Your task to perform on an android device: toggle pop-ups in chrome Image 0: 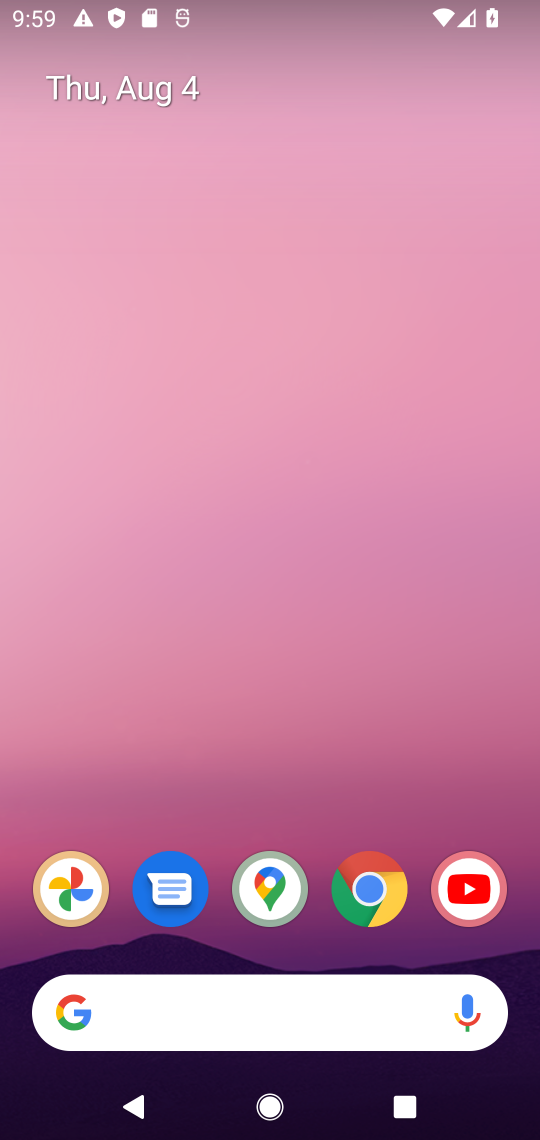
Step 0: press home button
Your task to perform on an android device: toggle pop-ups in chrome Image 1: 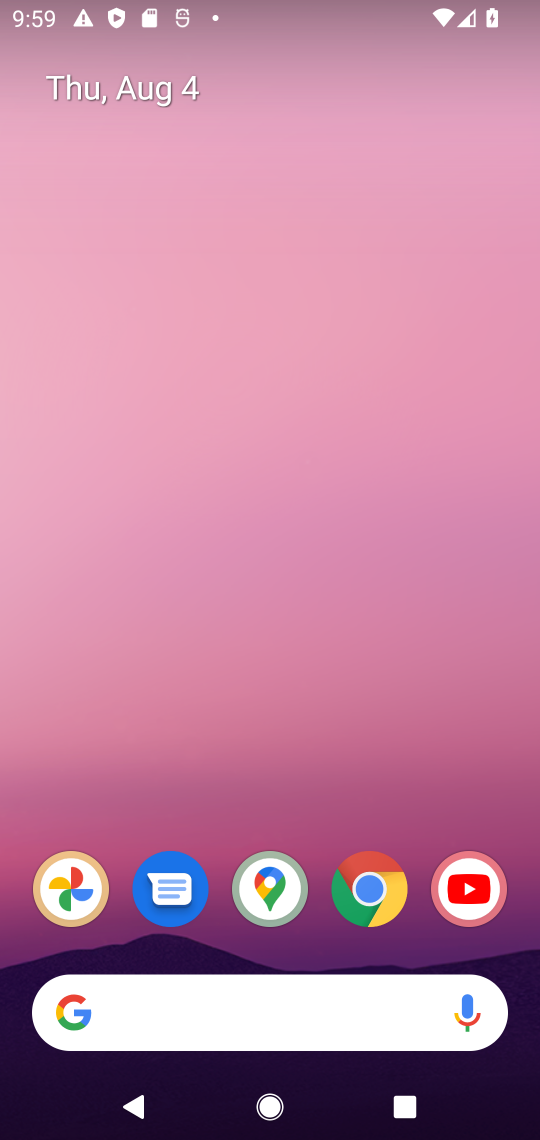
Step 1: drag from (425, 816) to (419, 451)
Your task to perform on an android device: toggle pop-ups in chrome Image 2: 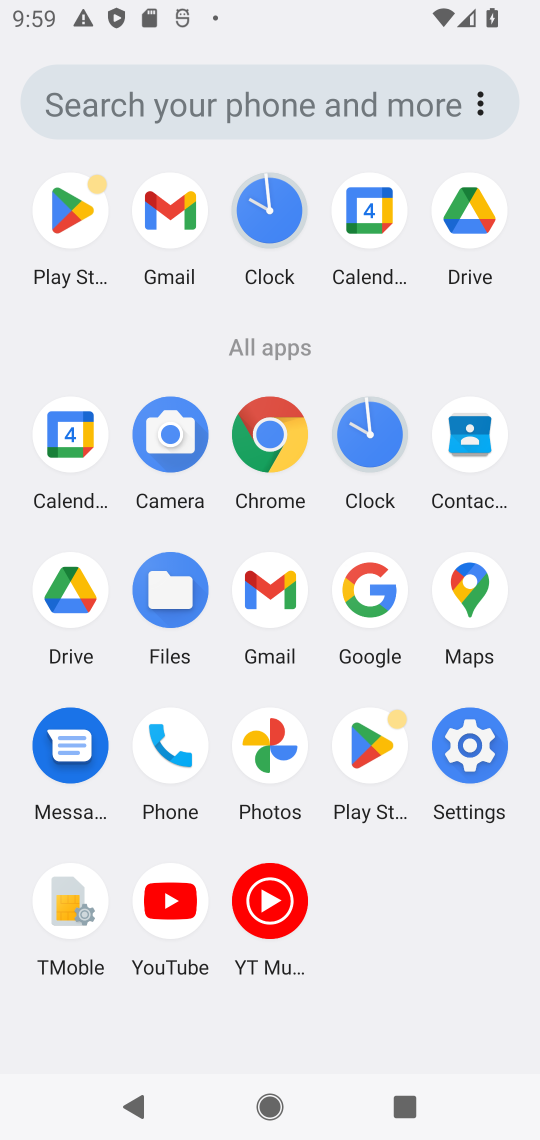
Step 2: click (275, 422)
Your task to perform on an android device: toggle pop-ups in chrome Image 3: 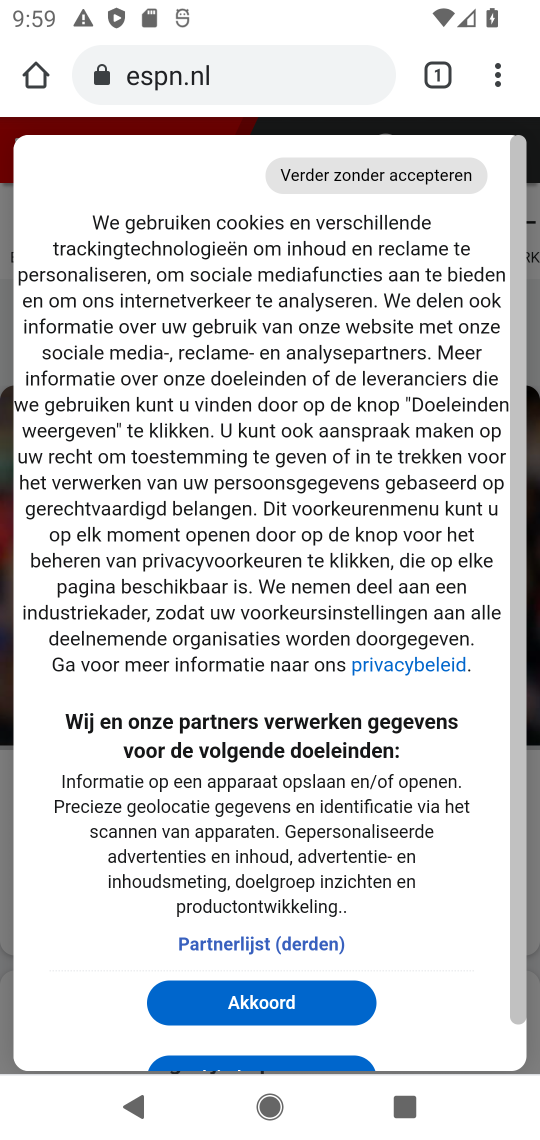
Step 3: click (498, 74)
Your task to perform on an android device: toggle pop-ups in chrome Image 4: 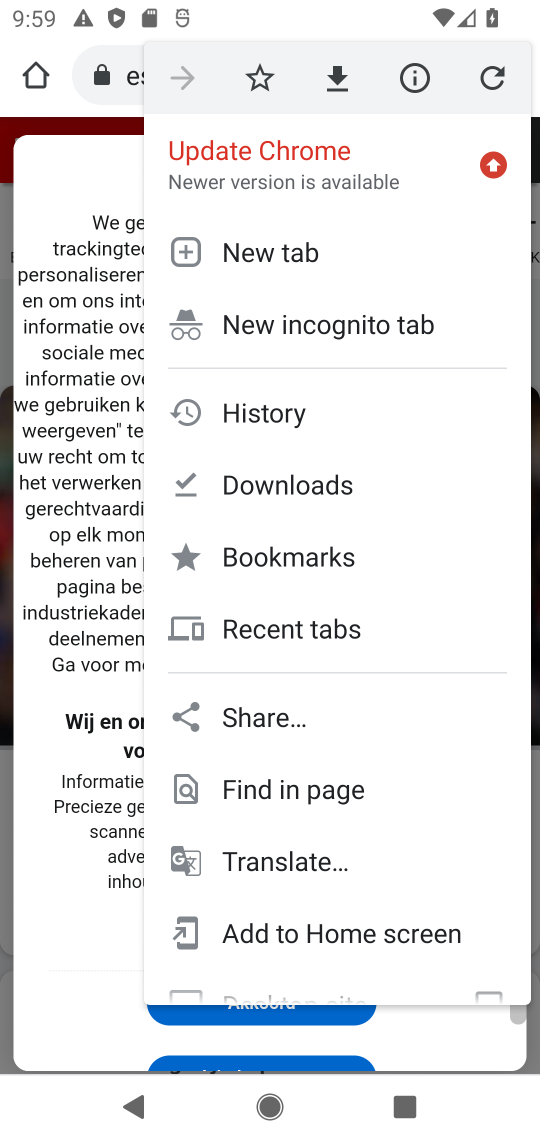
Step 4: drag from (430, 656) to (427, 520)
Your task to perform on an android device: toggle pop-ups in chrome Image 5: 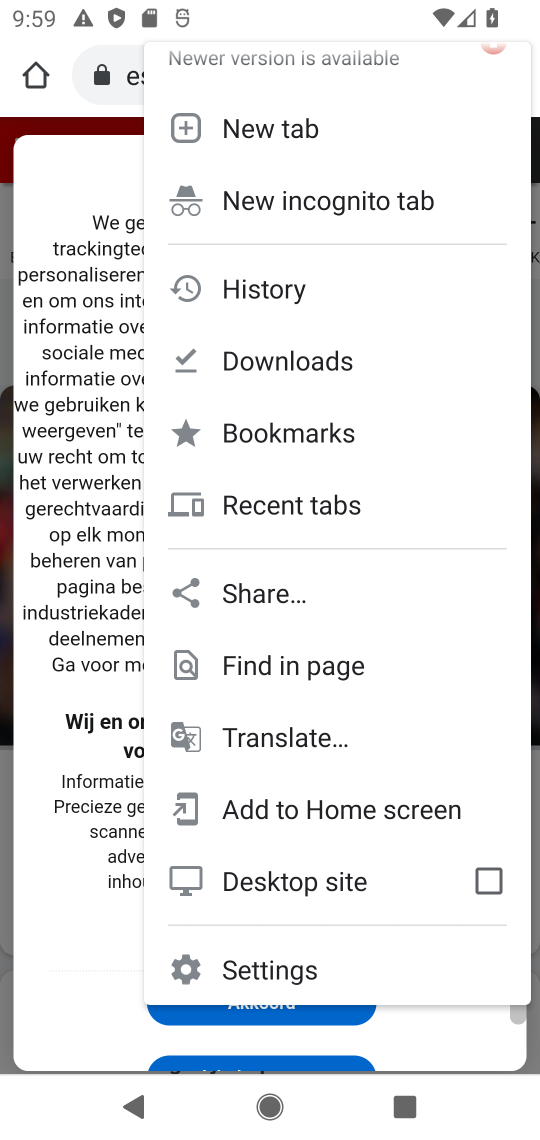
Step 5: drag from (424, 892) to (431, 696)
Your task to perform on an android device: toggle pop-ups in chrome Image 6: 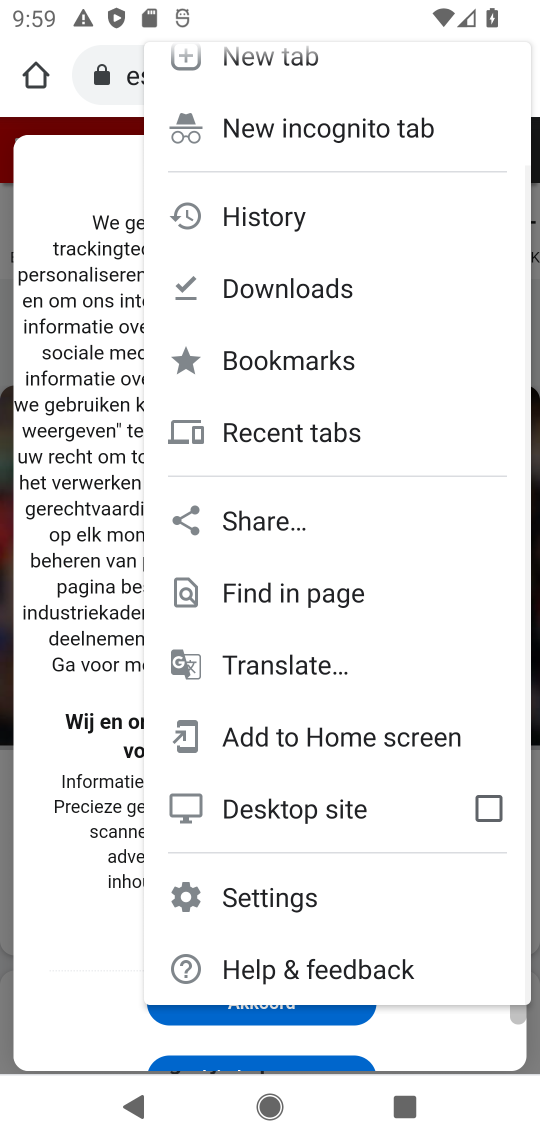
Step 6: click (372, 900)
Your task to perform on an android device: toggle pop-ups in chrome Image 7: 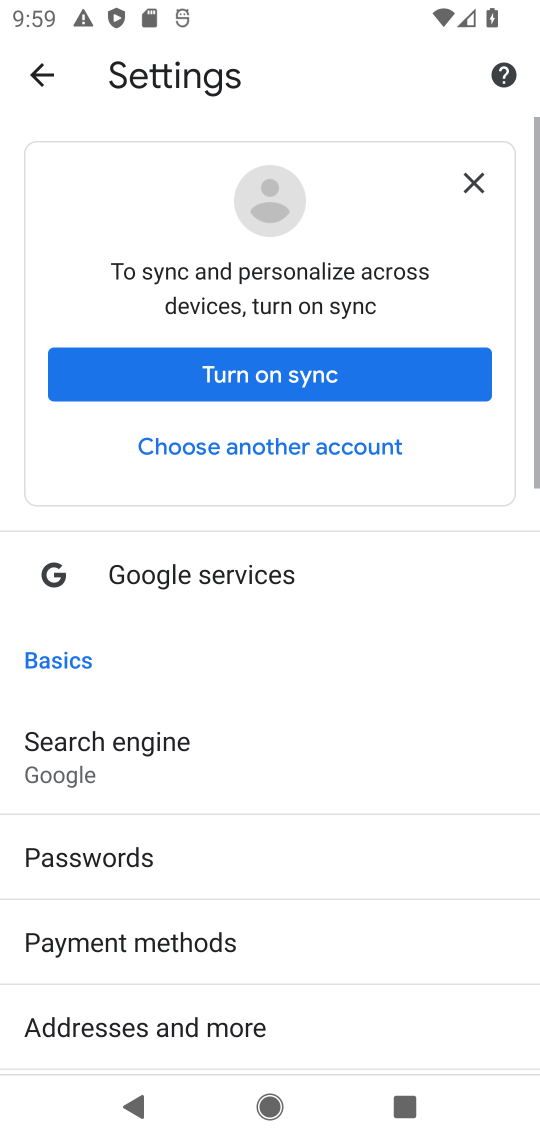
Step 7: drag from (377, 899) to (397, 747)
Your task to perform on an android device: toggle pop-ups in chrome Image 8: 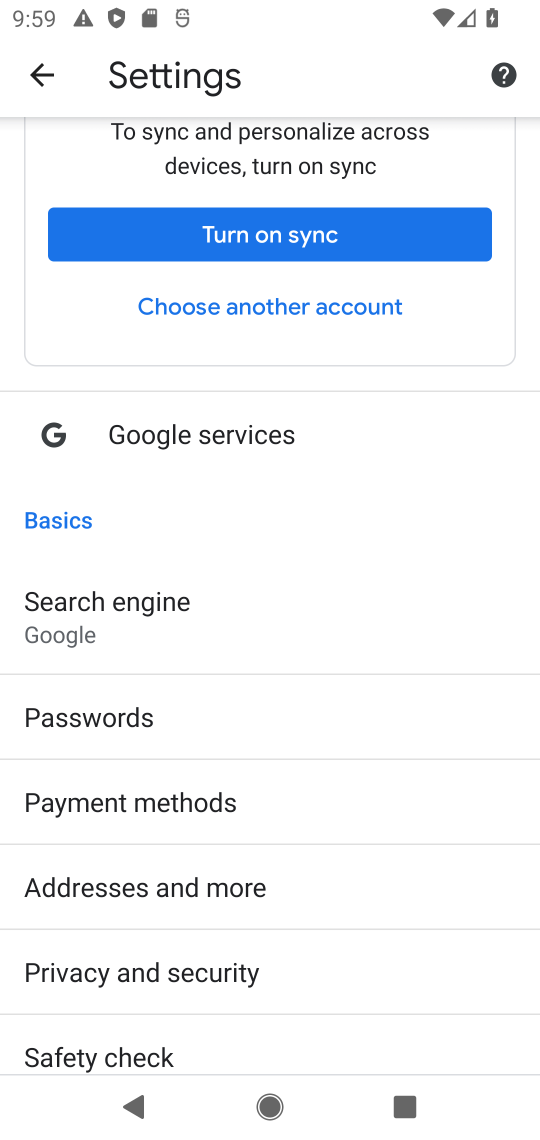
Step 8: drag from (416, 949) to (429, 727)
Your task to perform on an android device: toggle pop-ups in chrome Image 9: 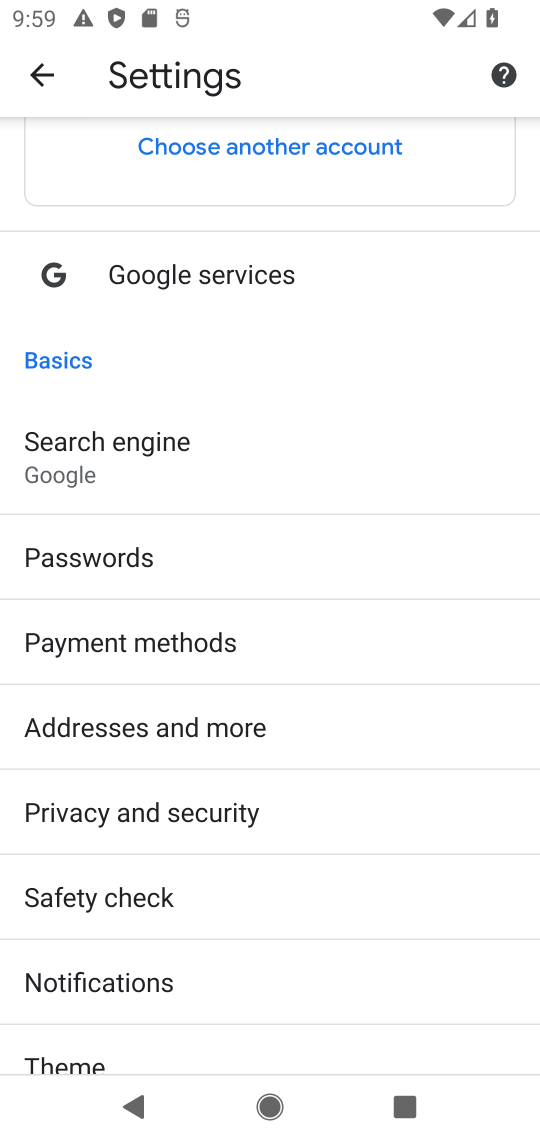
Step 9: drag from (405, 907) to (416, 753)
Your task to perform on an android device: toggle pop-ups in chrome Image 10: 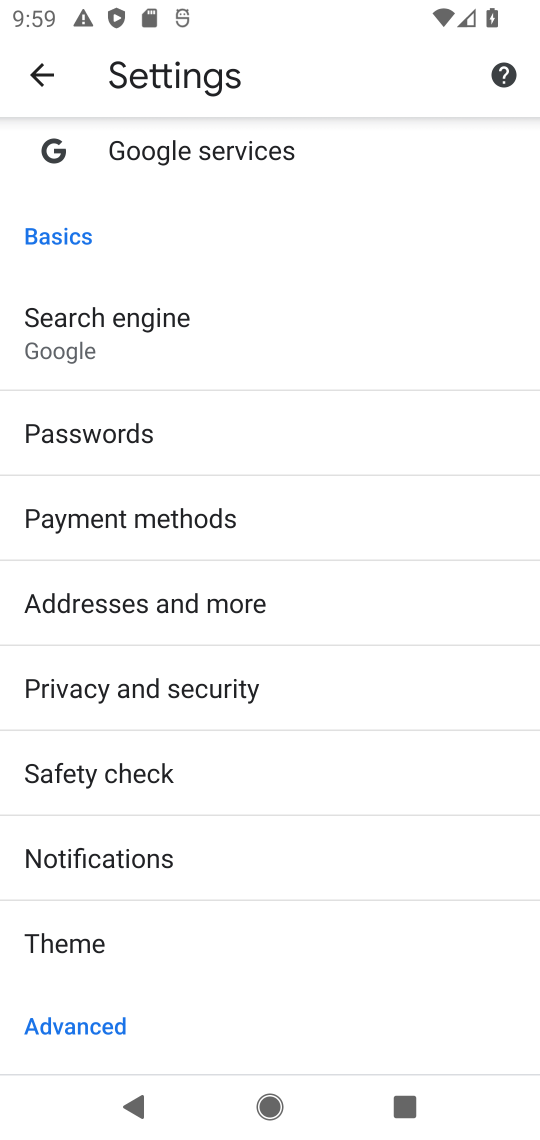
Step 10: drag from (403, 904) to (417, 693)
Your task to perform on an android device: toggle pop-ups in chrome Image 11: 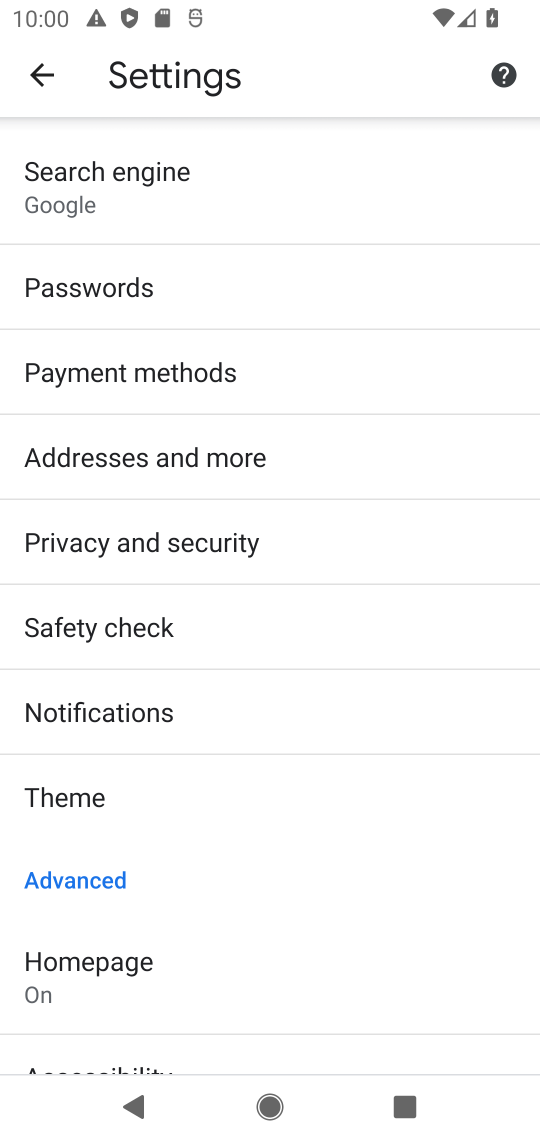
Step 11: drag from (380, 852) to (373, 638)
Your task to perform on an android device: toggle pop-ups in chrome Image 12: 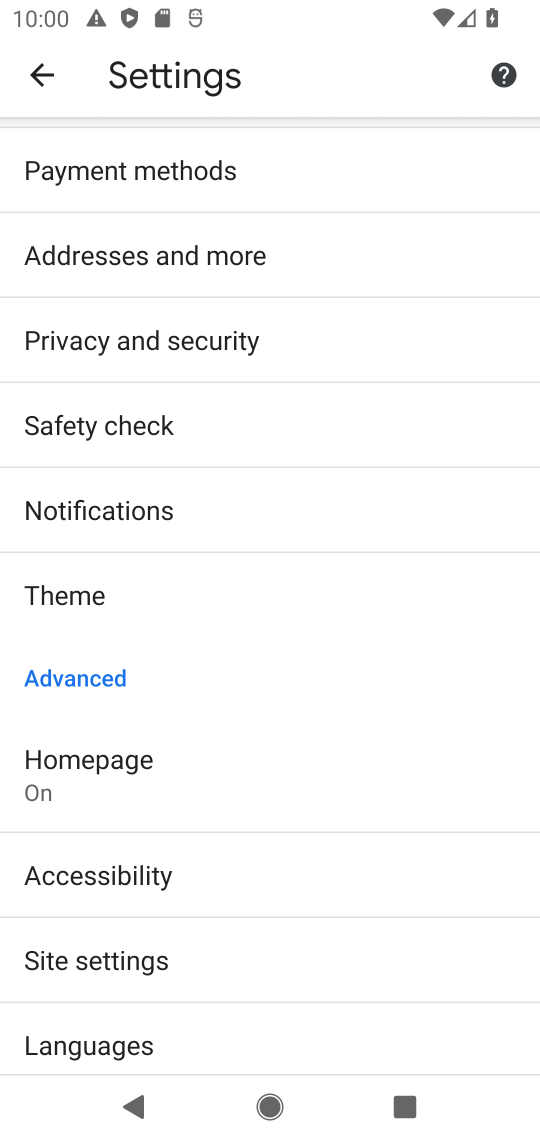
Step 12: drag from (370, 802) to (375, 575)
Your task to perform on an android device: toggle pop-ups in chrome Image 13: 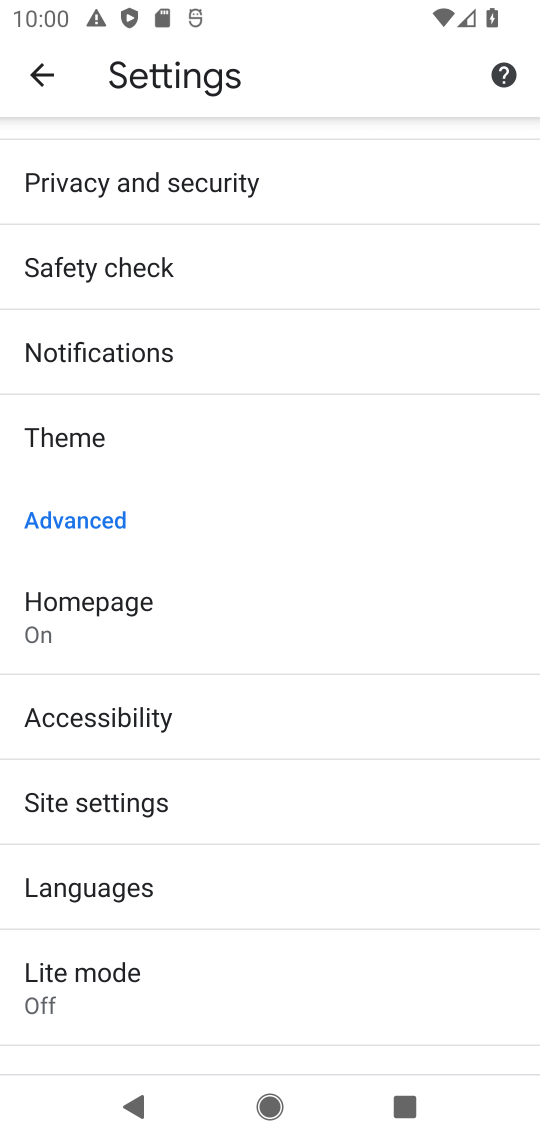
Step 13: click (342, 788)
Your task to perform on an android device: toggle pop-ups in chrome Image 14: 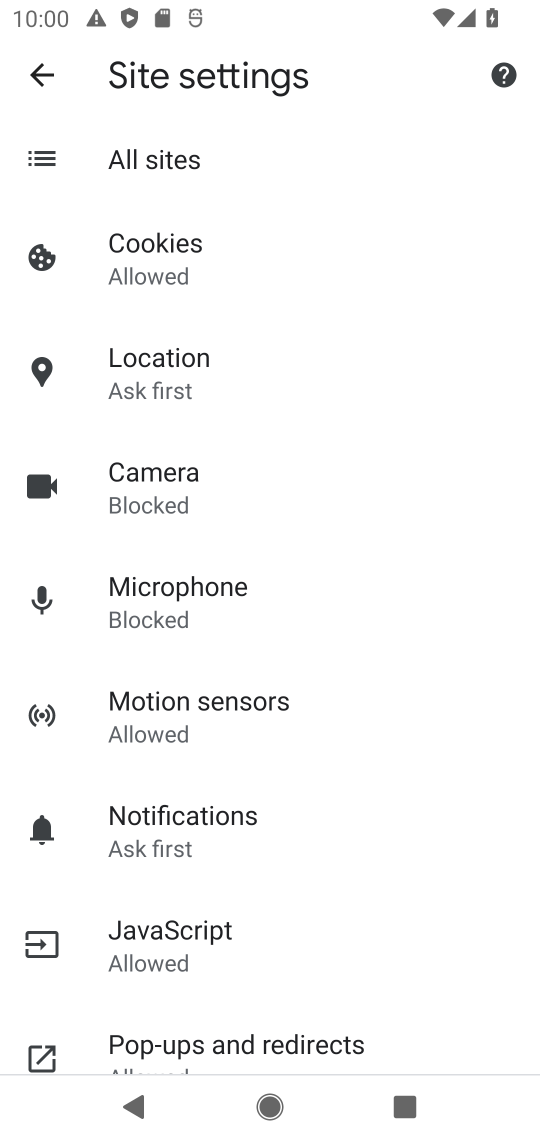
Step 14: drag from (406, 826) to (417, 644)
Your task to perform on an android device: toggle pop-ups in chrome Image 15: 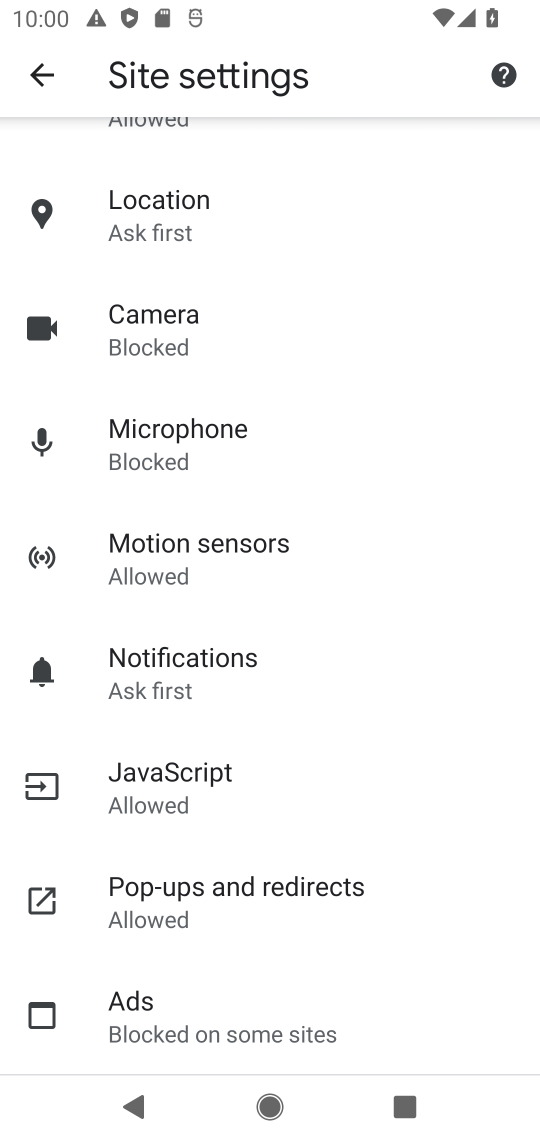
Step 15: drag from (414, 891) to (423, 698)
Your task to perform on an android device: toggle pop-ups in chrome Image 16: 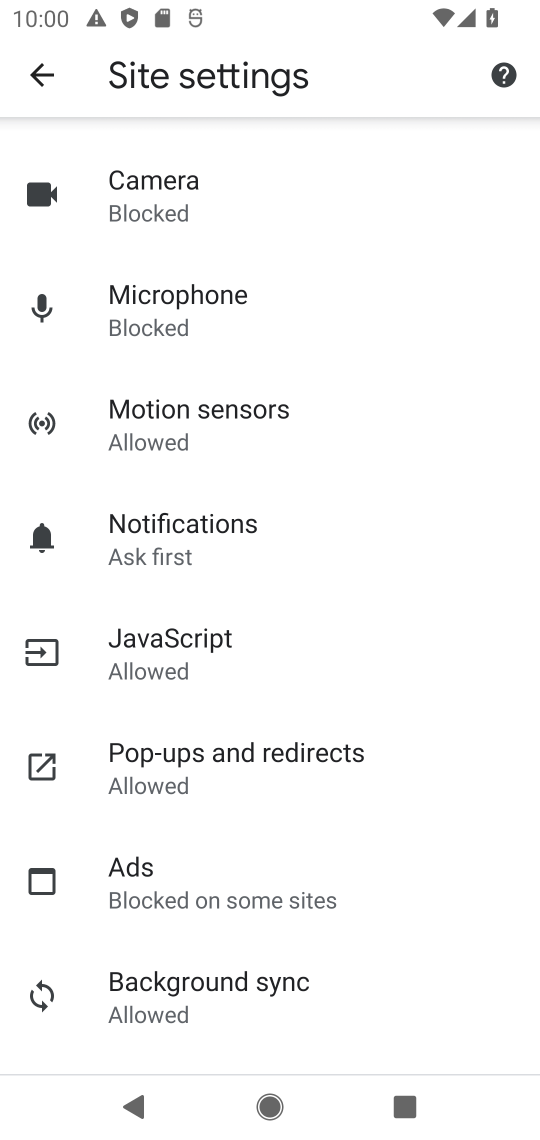
Step 16: click (410, 776)
Your task to perform on an android device: toggle pop-ups in chrome Image 17: 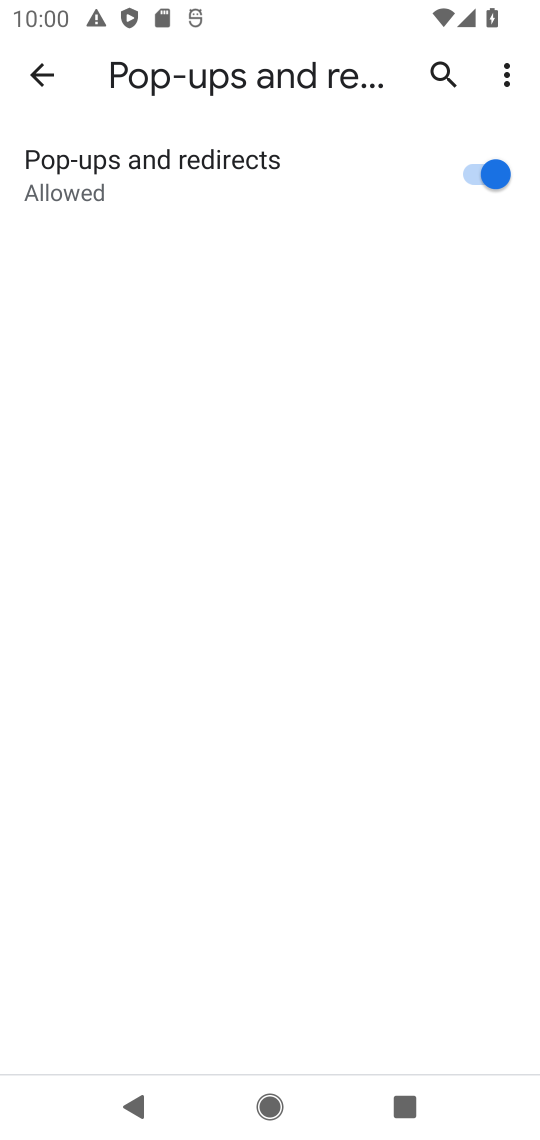
Step 17: click (493, 170)
Your task to perform on an android device: toggle pop-ups in chrome Image 18: 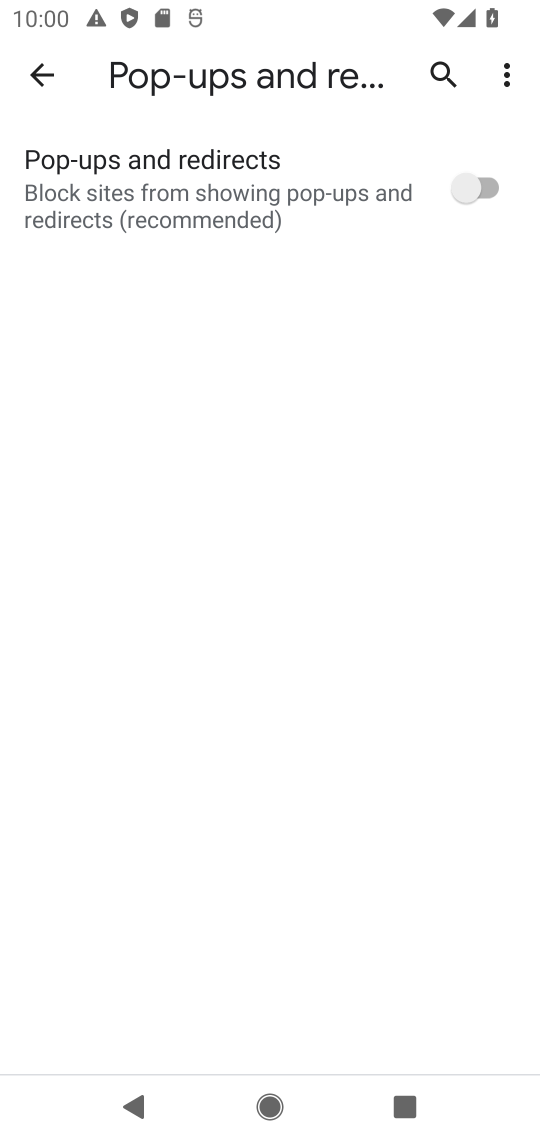
Step 18: task complete